Your task to perform on an android device: clear all cookies in the chrome app Image 0: 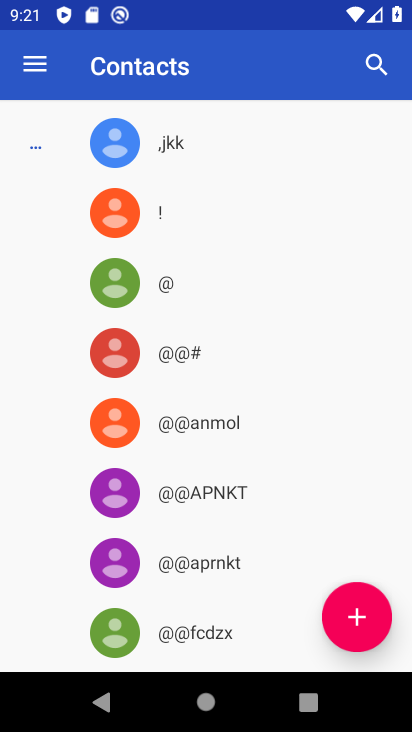
Step 0: press home button
Your task to perform on an android device: clear all cookies in the chrome app Image 1: 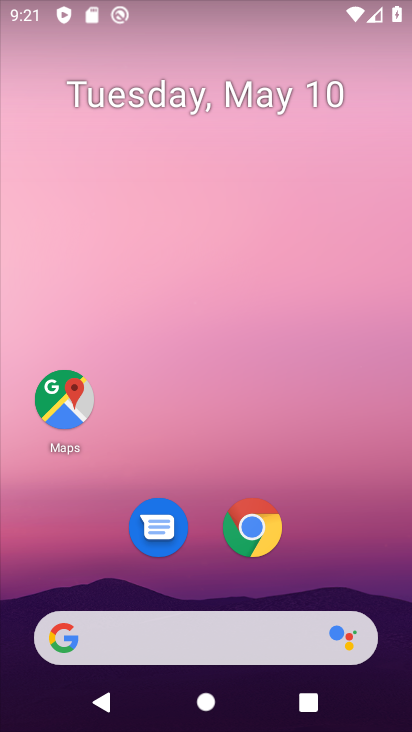
Step 1: click (254, 526)
Your task to perform on an android device: clear all cookies in the chrome app Image 2: 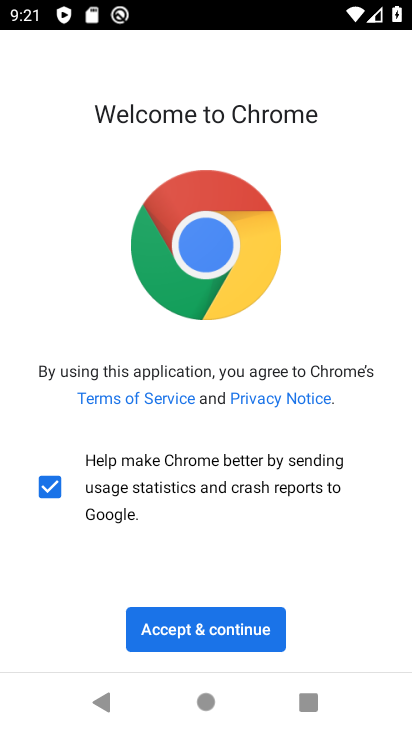
Step 2: click (203, 629)
Your task to perform on an android device: clear all cookies in the chrome app Image 3: 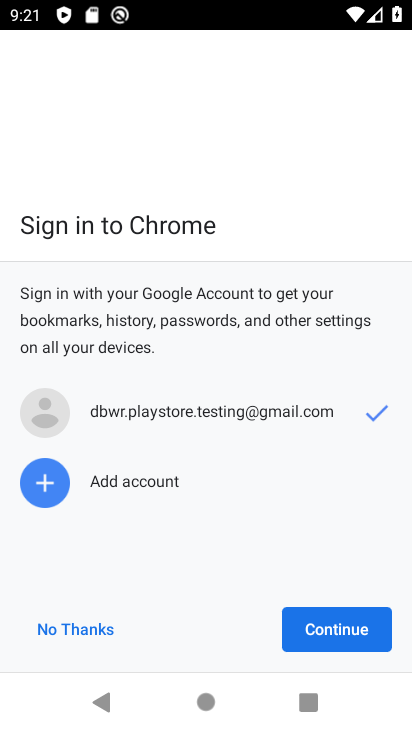
Step 3: click (345, 626)
Your task to perform on an android device: clear all cookies in the chrome app Image 4: 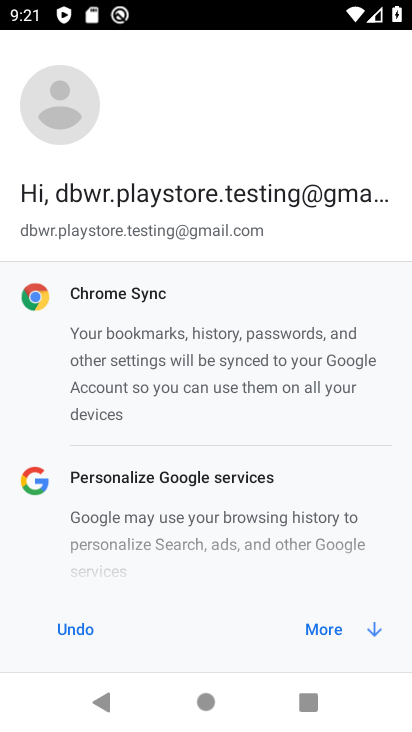
Step 4: click (335, 627)
Your task to perform on an android device: clear all cookies in the chrome app Image 5: 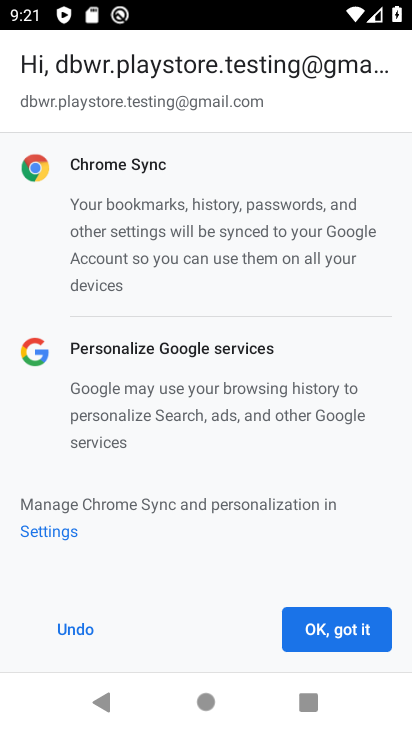
Step 5: click (335, 627)
Your task to perform on an android device: clear all cookies in the chrome app Image 6: 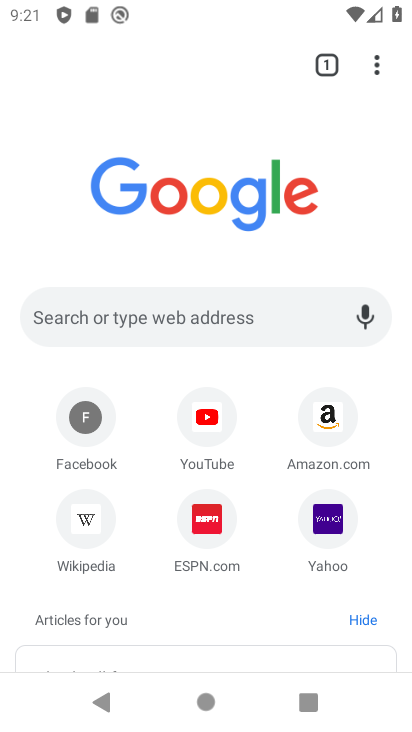
Step 6: click (376, 73)
Your task to perform on an android device: clear all cookies in the chrome app Image 7: 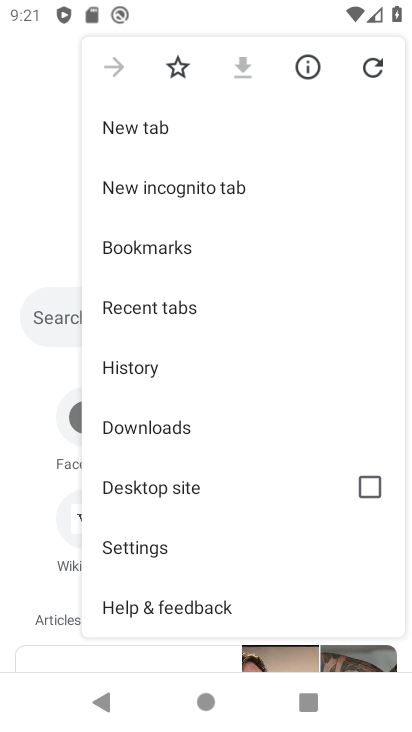
Step 7: click (145, 544)
Your task to perform on an android device: clear all cookies in the chrome app Image 8: 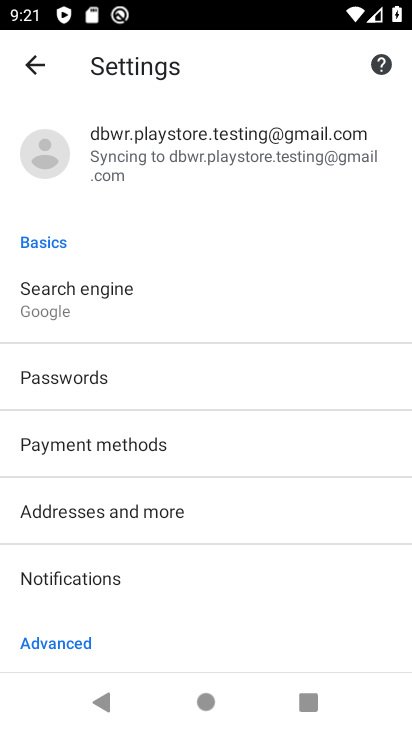
Step 8: drag from (136, 640) to (125, 212)
Your task to perform on an android device: clear all cookies in the chrome app Image 9: 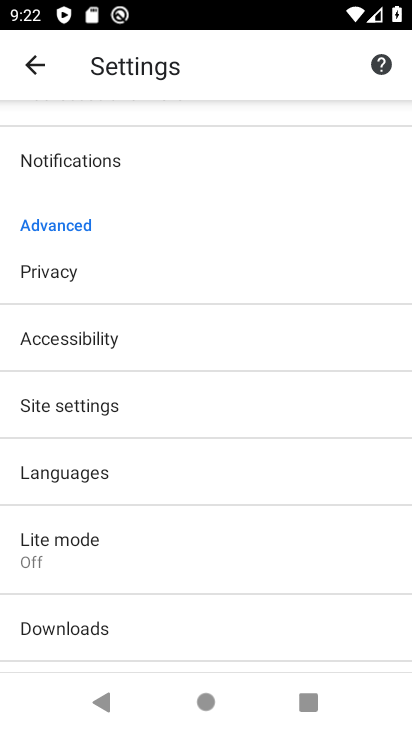
Step 9: click (51, 269)
Your task to perform on an android device: clear all cookies in the chrome app Image 10: 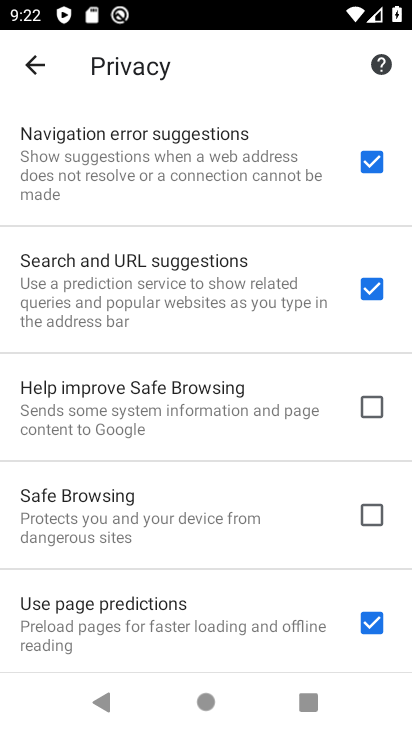
Step 10: drag from (220, 644) to (220, 243)
Your task to perform on an android device: clear all cookies in the chrome app Image 11: 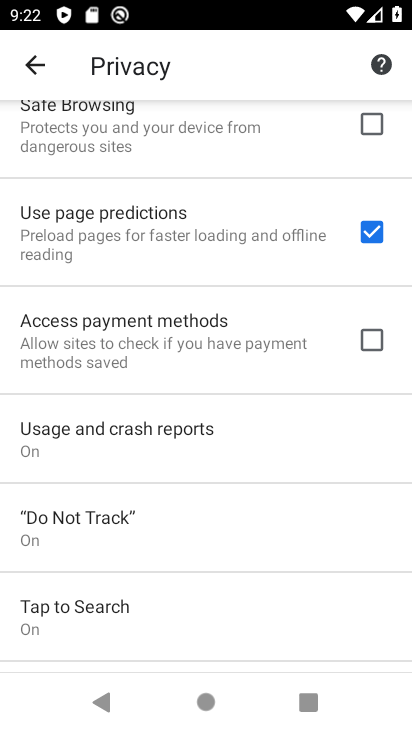
Step 11: drag from (197, 637) to (210, 321)
Your task to perform on an android device: clear all cookies in the chrome app Image 12: 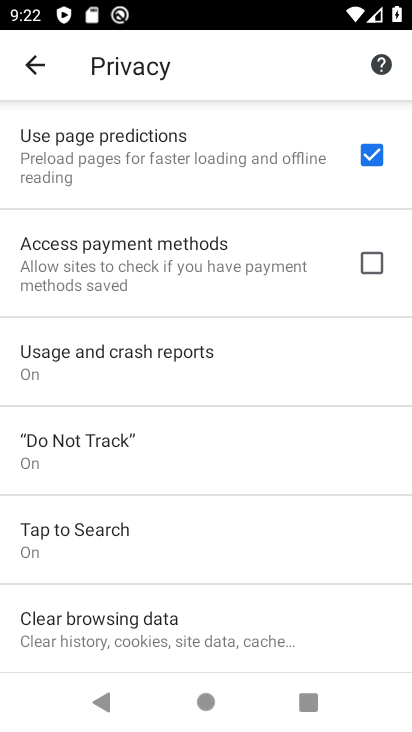
Step 12: click (147, 631)
Your task to perform on an android device: clear all cookies in the chrome app Image 13: 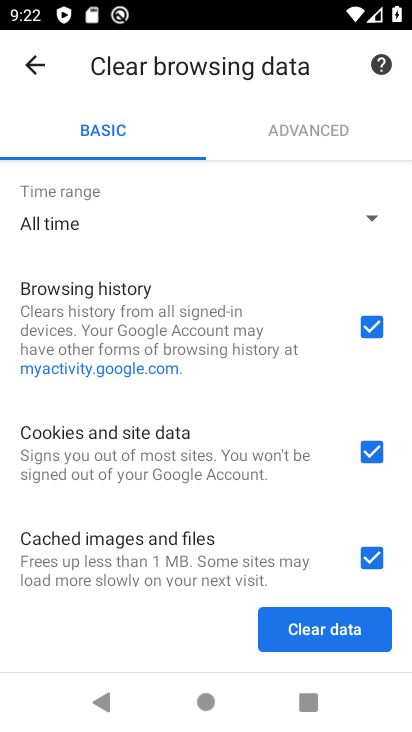
Step 13: drag from (129, 601) to (140, 317)
Your task to perform on an android device: clear all cookies in the chrome app Image 14: 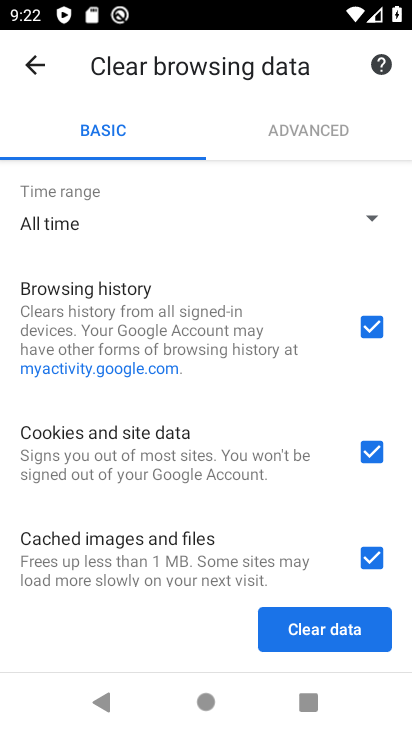
Step 14: click (373, 327)
Your task to perform on an android device: clear all cookies in the chrome app Image 15: 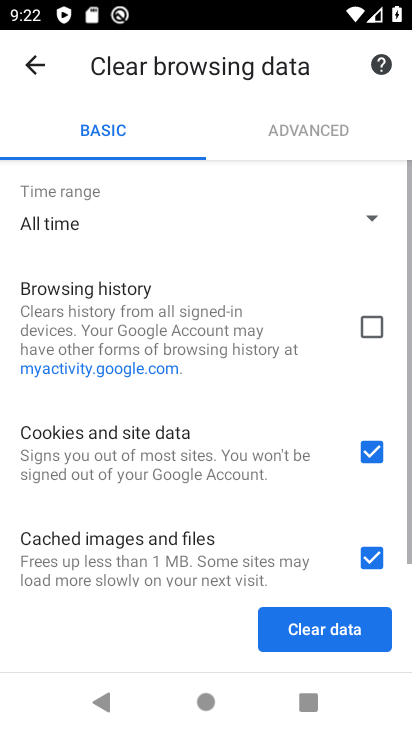
Step 15: click (369, 560)
Your task to perform on an android device: clear all cookies in the chrome app Image 16: 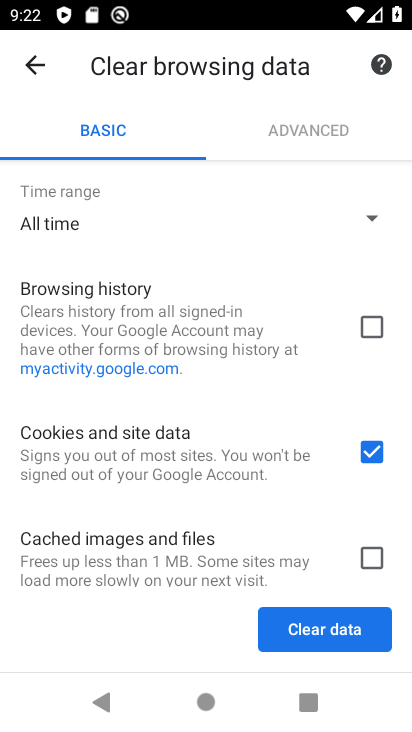
Step 16: click (314, 626)
Your task to perform on an android device: clear all cookies in the chrome app Image 17: 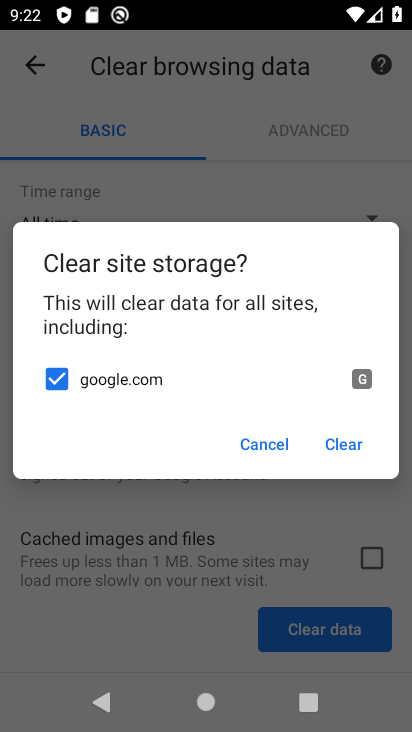
Step 17: click (343, 442)
Your task to perform on an android device: clear all cookies in the chrome app Image 18: 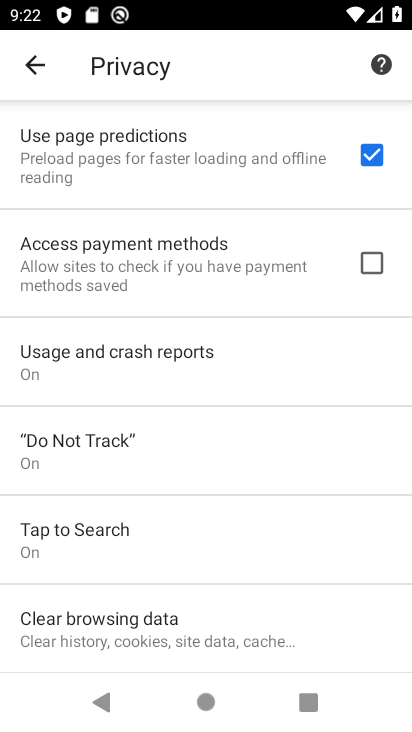
Step 18: task complete